Your task to perform on an android device: open device folders in google photos Image 0: 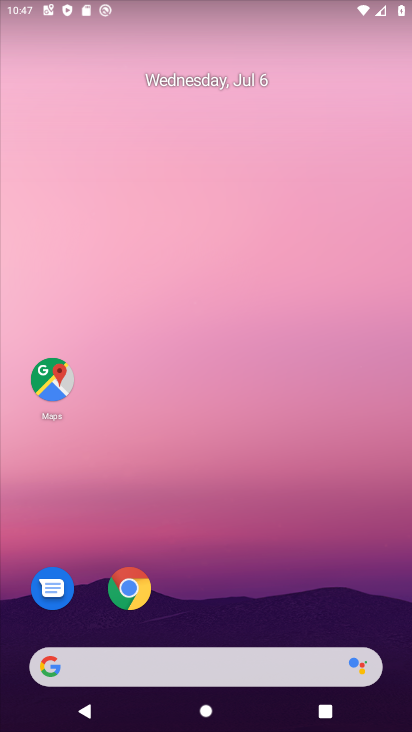
Step 0: drag from (258, 615) to (219, 253)
Your task to perform on an android device: open device folders in google photos Image 1: 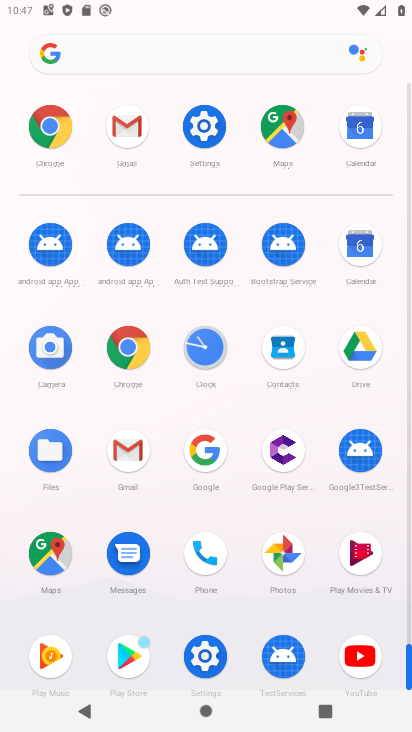
Step 1: click (280, 546)
Your task to perform on an android device: open device folders in google photos Image 2: 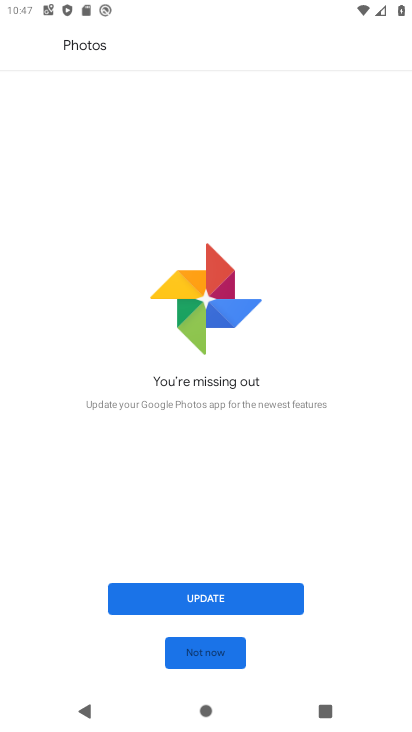
Step 2: click (203, 649)
Your task to perform on an android device: open device folders in google photos Image 3: 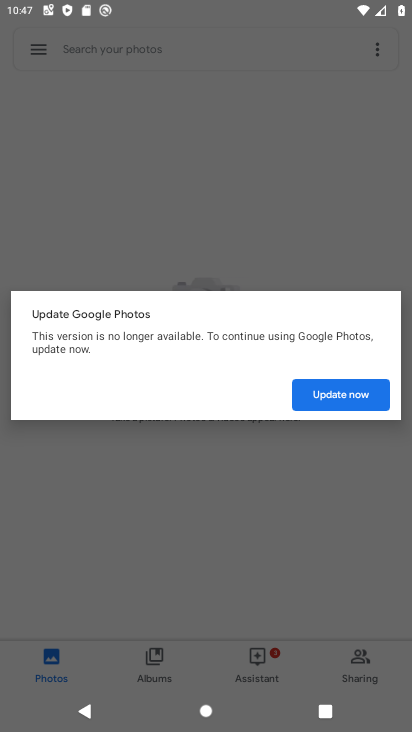
Step 3: press back button
Your task to perform on an android device: open device folders in google photos Image 4: 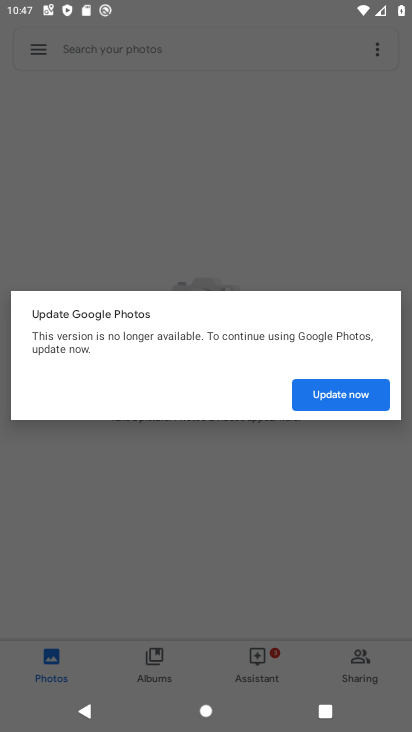
Step 4: click (314, 392)
Your task to perform on an android device: open device folders in google photos Image 5: 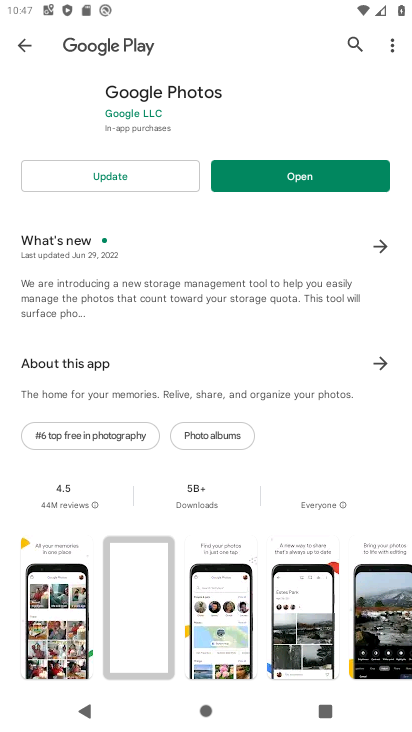
Step 5: press back button
Your task to perform on an android device: open device folders in google photos Image 6: 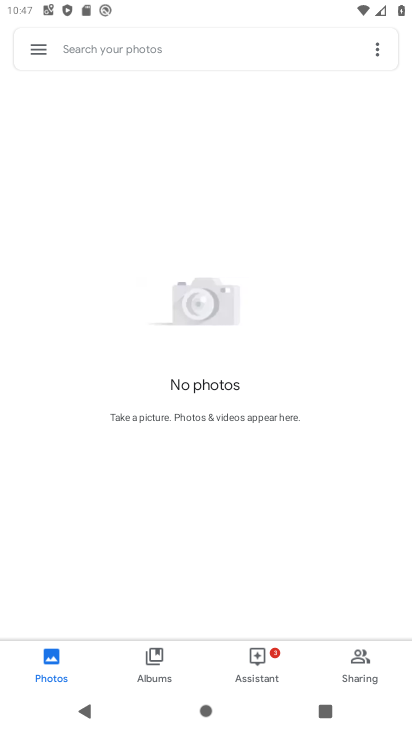
Step 6: click (162, 667)
Your task to perform on an android device: open device folders in google photos Image 7: 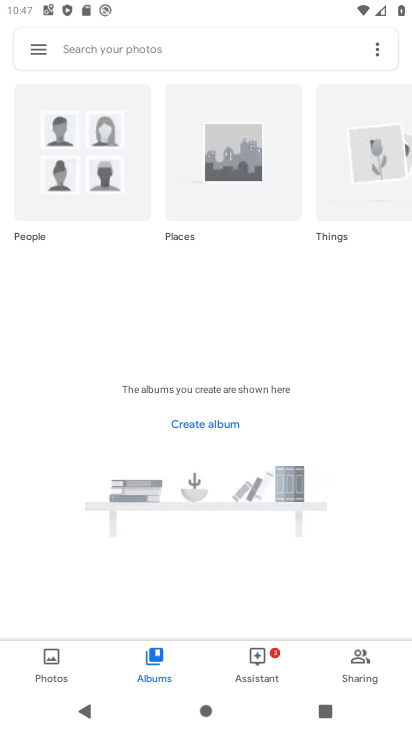
Step 7: task complete